Your task to perform on an android device: change the clock style Image 0: 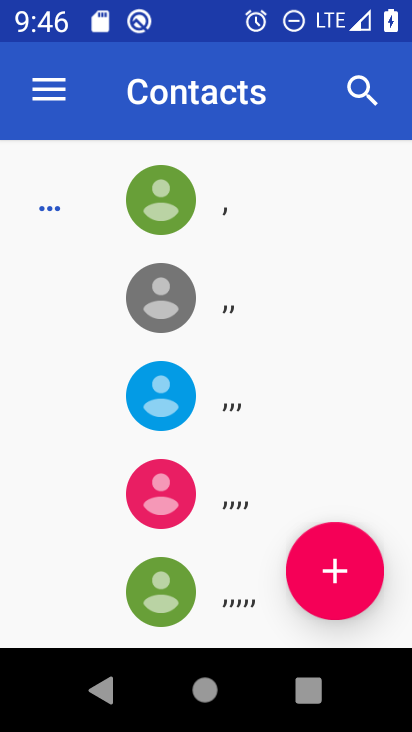
Step 0: press home button
Your task to perform on an android device: change the clock style Image 1: 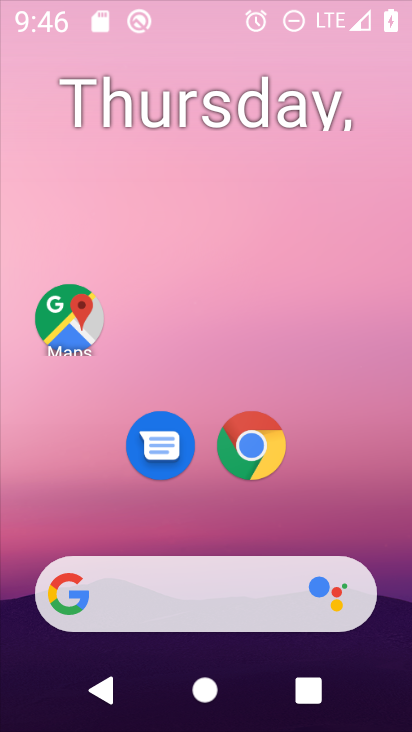
Step 1: drag from (403, 616) to (313, 41)
Your task to perform on an android device: change the clock style Image 2: 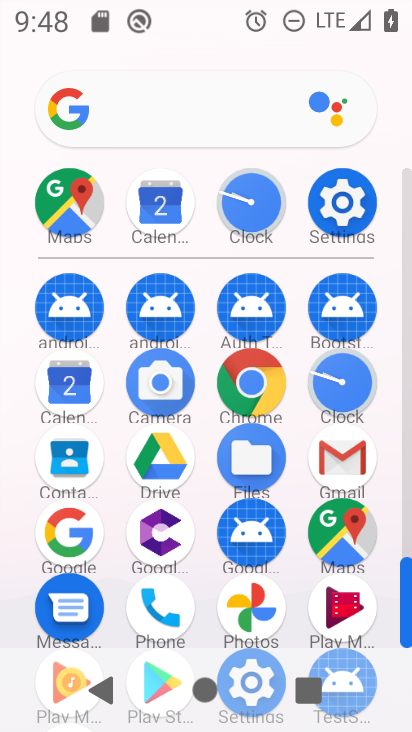
Step 2: click (354, 361)
Your task to perform on an android device: change the clock style Image 3: 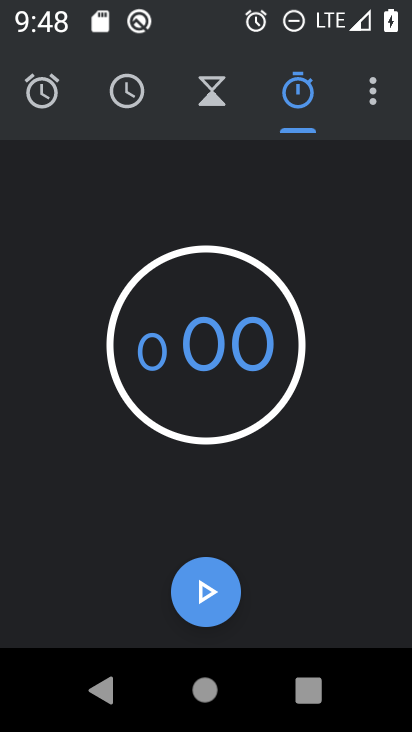
Step 3: click (371, 89)
Your task to perform on an android device: change the clock style Image 4: 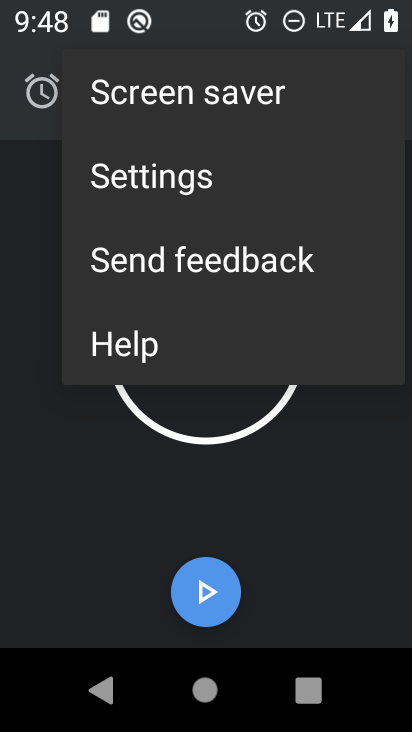
Step 4: click (238, 168)
Your task to perform on an android device: change the clock style Image 5: 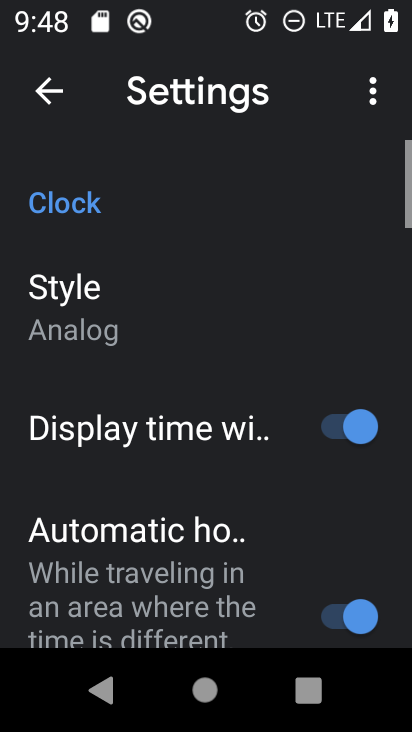
Step 5: click (117, 328)
Your task to perform on an android device: change the clock style Image 6: 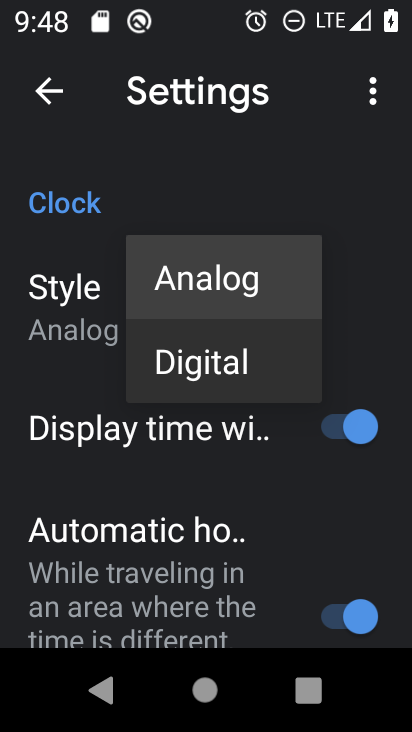
Step 6: click (209, 344)
Your task to perform on an android device: change the clock style Image 7: 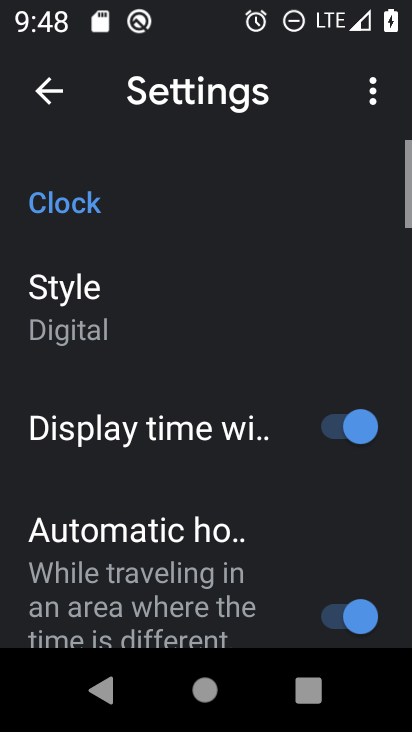
Step 7: task complete